Your task to perform on an android device: turn off picture-in-picture Image 0: 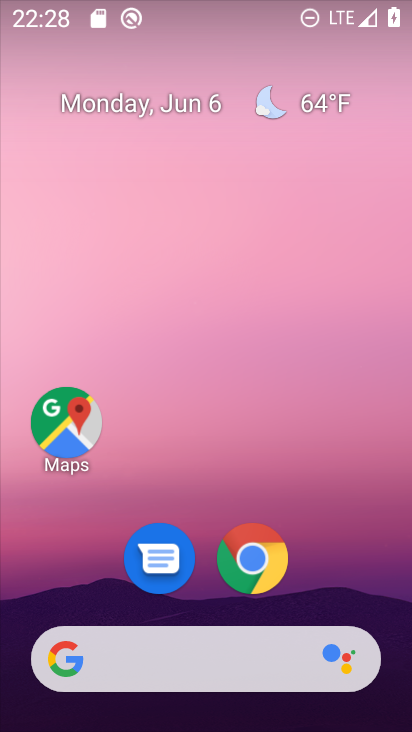
Step 0: drag from (216, 726) to (204, 207)
Your task to perform on an android device: turn off picture-in-picture Image 1: 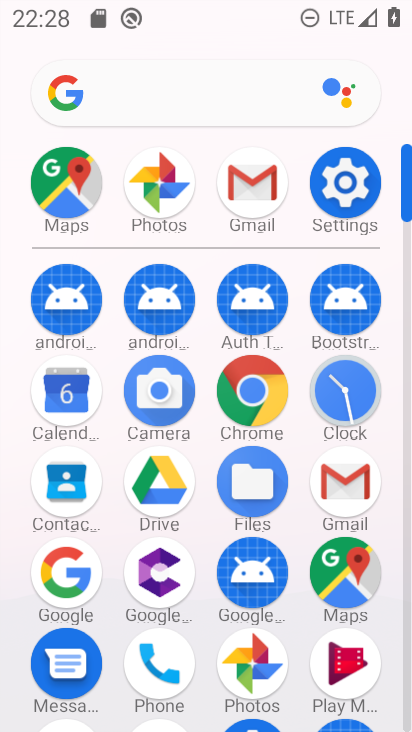
Step 1: click (332, 171)
Your task to perform on an android device: turn off picture-in-picture Image 2: 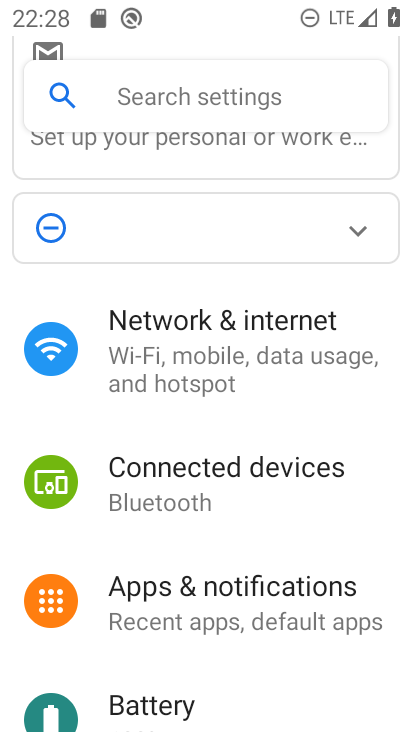
Step 2: click (239, 599)
Your task to perform on an android device: turn off picture-in-picture Image 3: 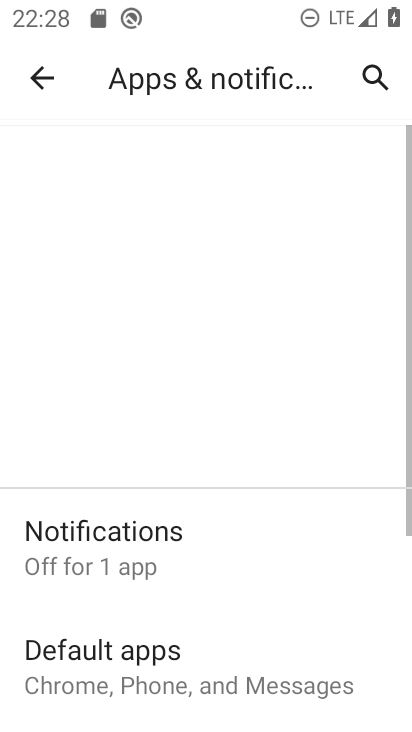
Step 3: drag from (211, 689) to (199, 361)
Your task to perform on an android device: turn off picture-in-picture Image 4: 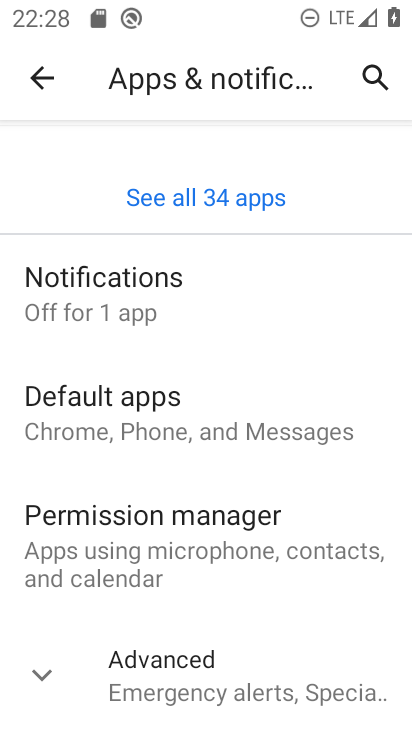
Step 4: drag from (210, 667) to (206, 257)
Your task to perform on an android device: turn off picture-in-picture Image 5: 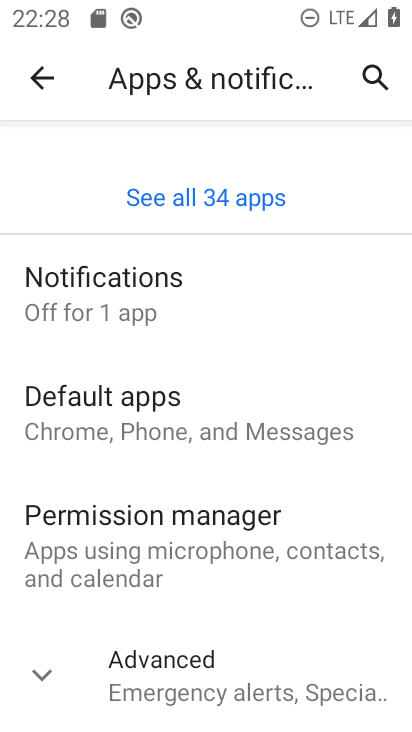
Step 5: click (183, 671)
Your task to perform on an android device: turn off picture-in-picture Image 6: 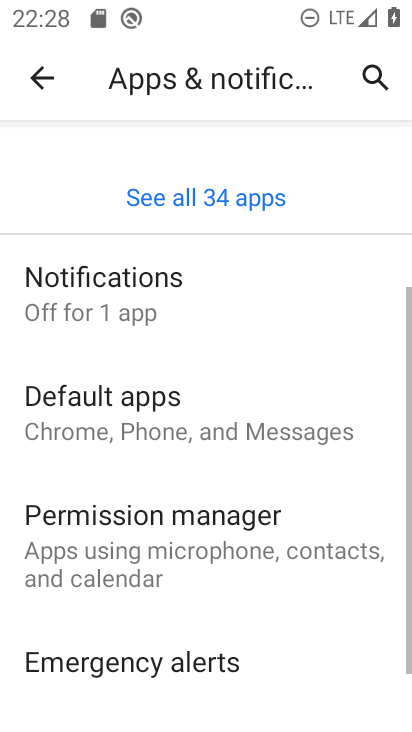
Step 6: drag from (234, 676) to (236, 344)
Your task to perform on an android device: turn off picture-in-picture Image 7: 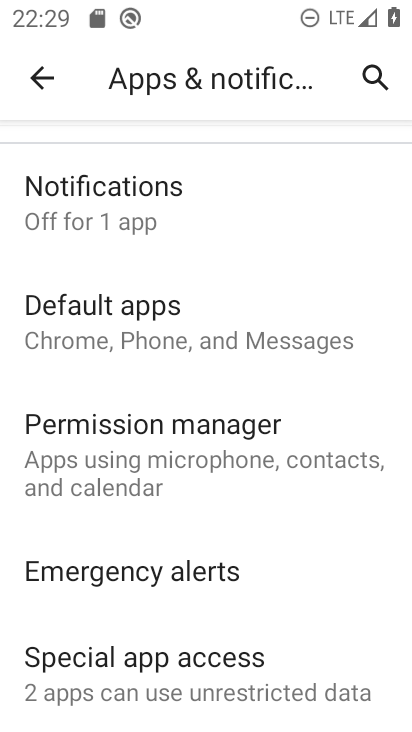
Step 7: click (192, 662)
Your task to perform on an android device: turn off picture-in-picture Image 8: 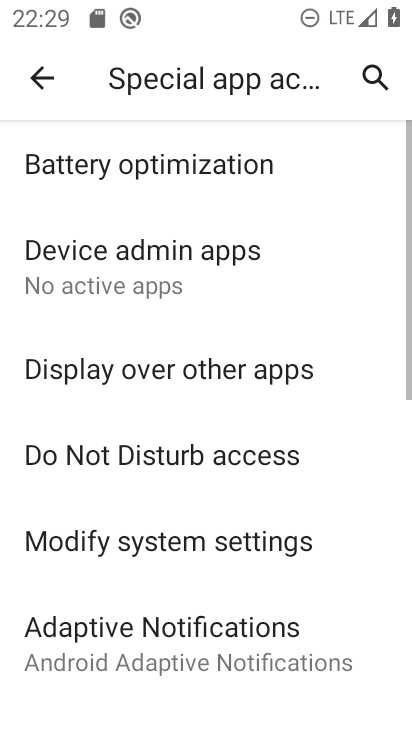
Step 8: drag from (232, 668) to (242, 337)
Your task to perform on an android device: turn off picture-in-picture Image 9: 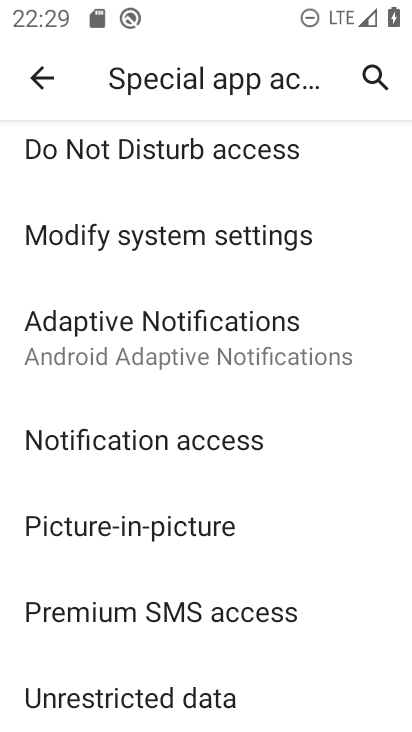
Step 9: click (170, 529)
Your task to perform on an android device: turn off picture-in-picture Image 10: 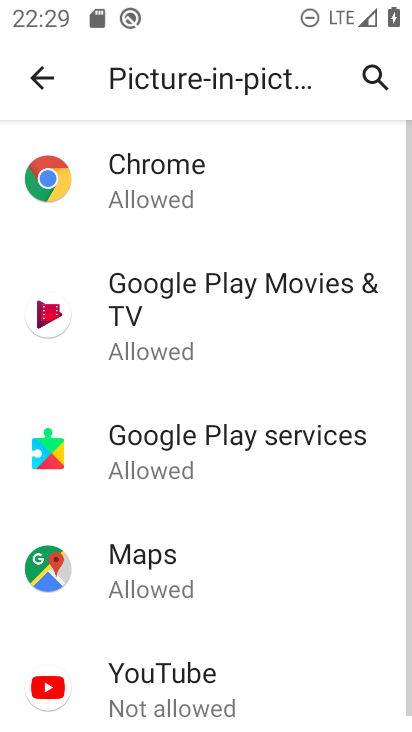
Step 10: click (163, 674)
Your task to perform on an android device: turn off picture-in-picture Image 11: 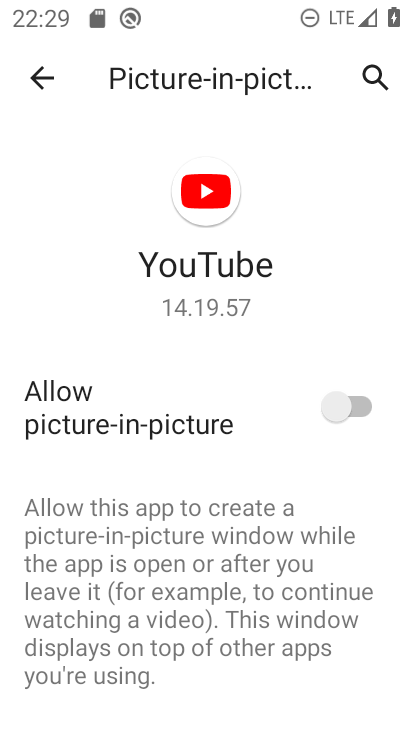
Step 11: task complete